Your task to perform on an android device: toggle sleep mode Image 0: 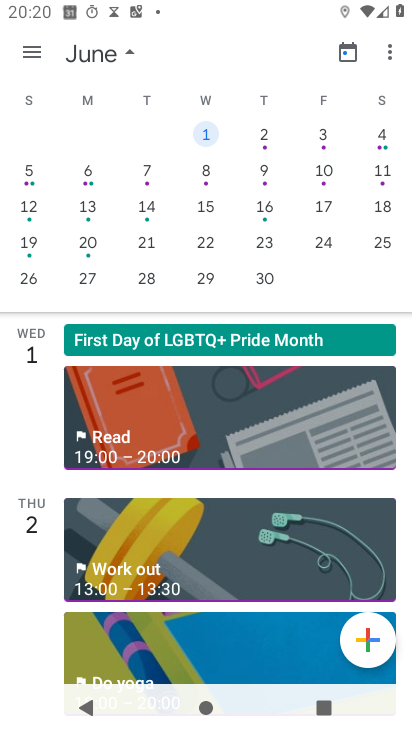
Step 0: press home button
Your task to perform on an android device: toggle sleep mode Image 1: 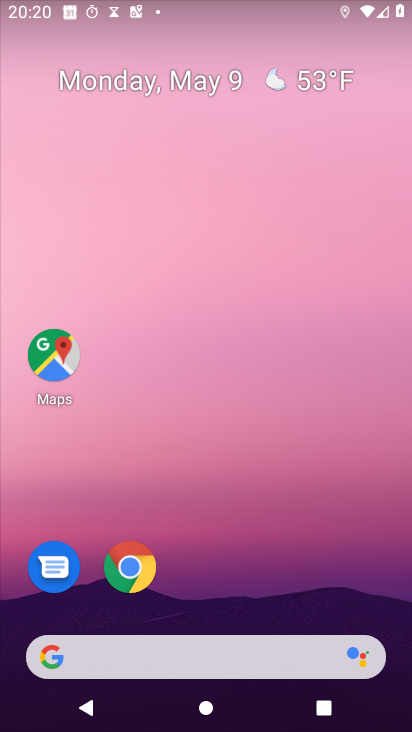
Step 1: drag from (248, 629) to (251, 5)
Your task to perform on an android device: toggle sleep mode Image 2: 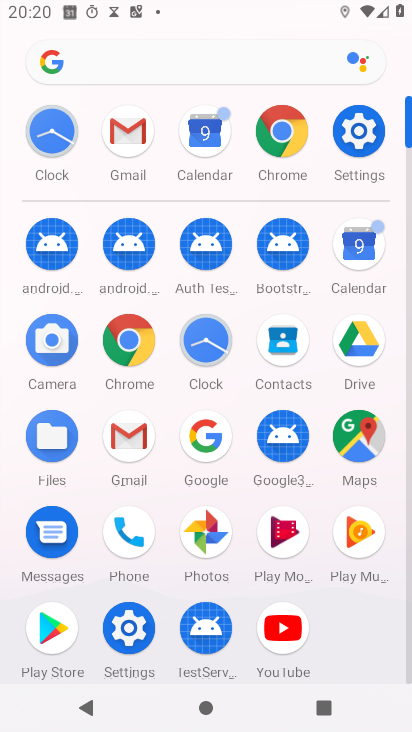
Step 2: click (354, 116)
Your task to perform on an android device: toggle sleep mode Image 3: 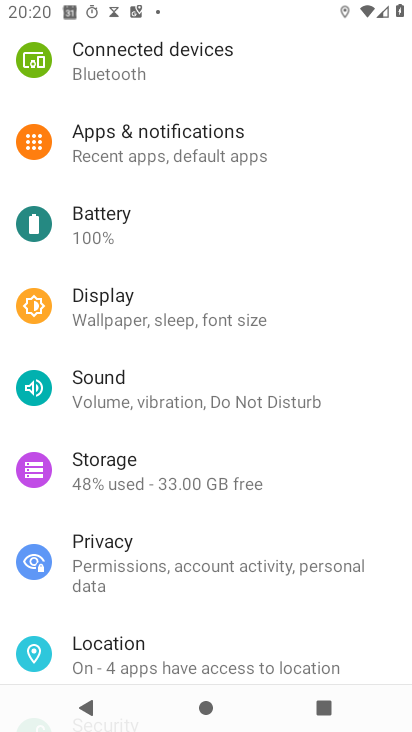
Step 3: drag from (108, 618) to (117, 429)
Your task to perform on an android device: toggle sleep mode Image 4: 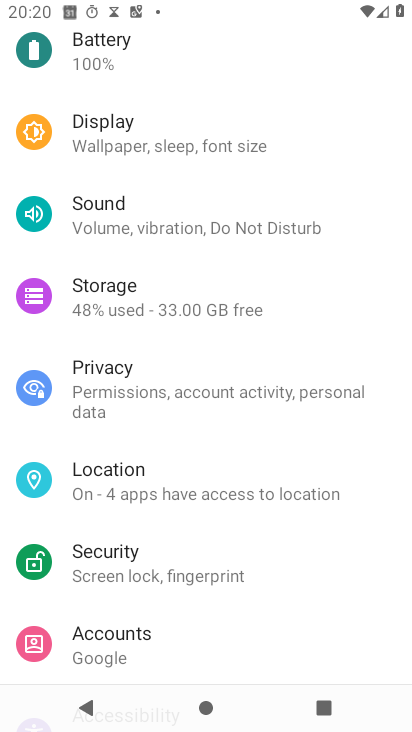
Step 4: drag from (170, 626) to (159, 463)
Your task to perform on an android device: toggle sleep mode Image 5: 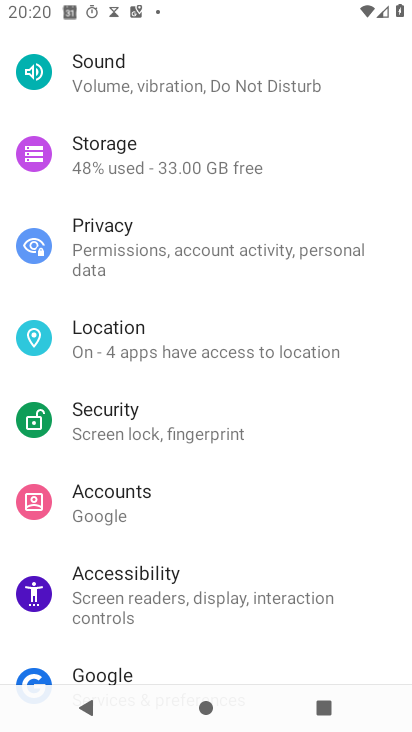
Step 5: drag from (187, 619) to (225, 413)
Your task to perform on an android device: toggle sleep mode Image 6: 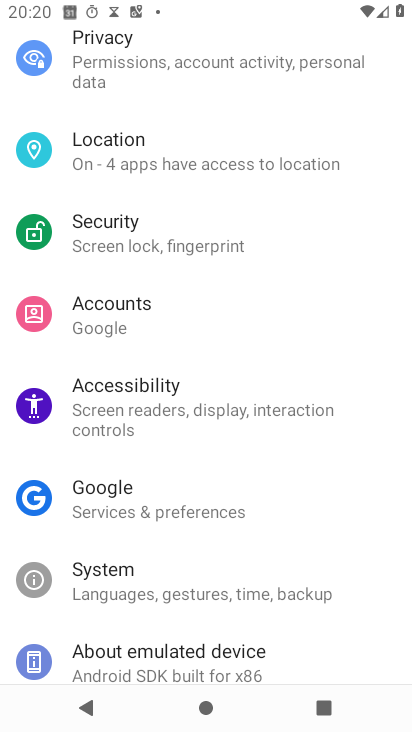
Step 6: drag from (210, 612) to (174, 434)
Your task to perform on an android device: toggle sleep mode Image 7: 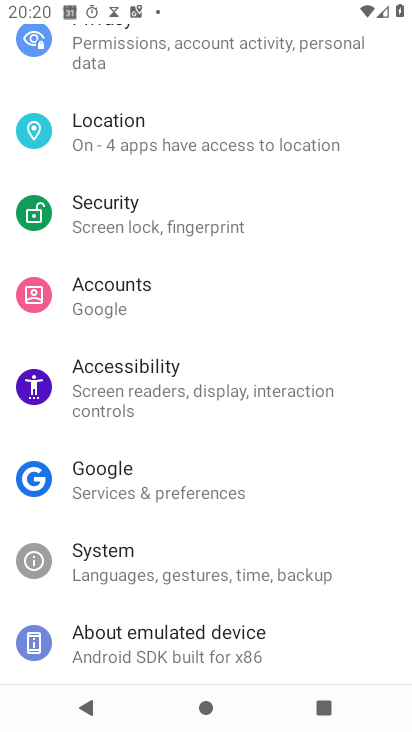
Step 7: drag from (187, 414) to (271, 622)
Your task to perform on an android device: toggle sleep mode Image 8: 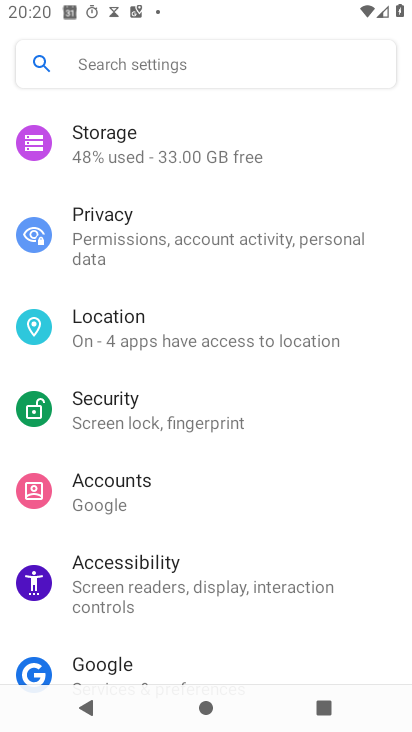
Step 8: drag from (239, 453) to (253, 638)
Your task to perform on an android device: toggle sleep mode Image 9: 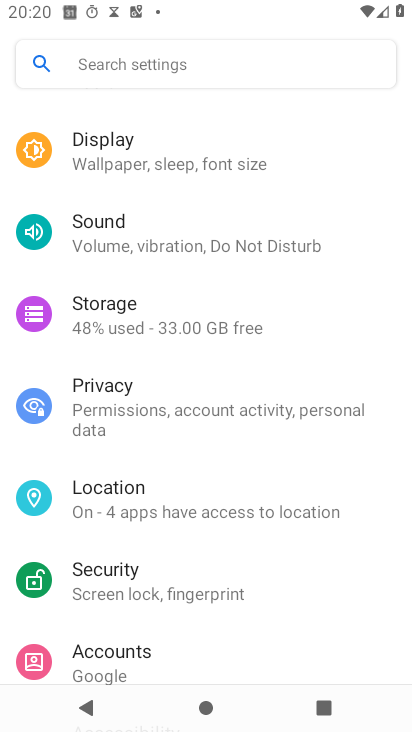
Step 9: drag from (224, 465) to (240, 614)
Your task to perform on an android device: toggle sleep mode Image 10: 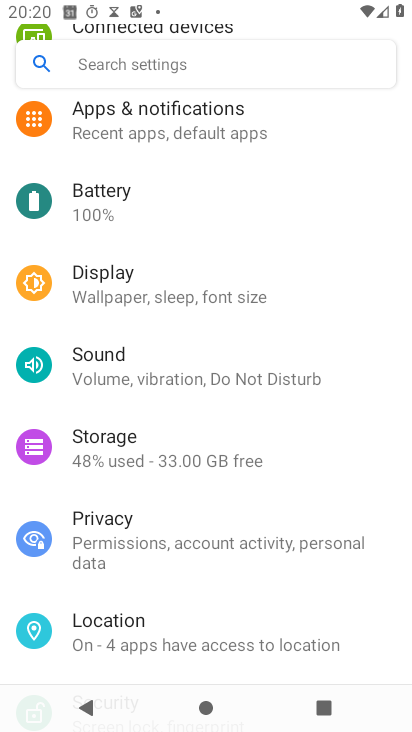
Step 10: drag from (225, 472) to (253, 618)
Your task to perform on an android device: toggle sleep mode Image 11: 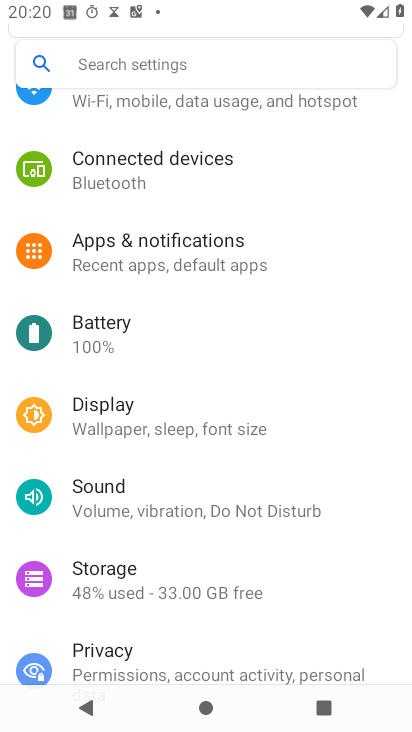
Step 11: drag from (266, 468) to (290, 596)
Your task to perform on an android device: toggle sleep mode Image 12: 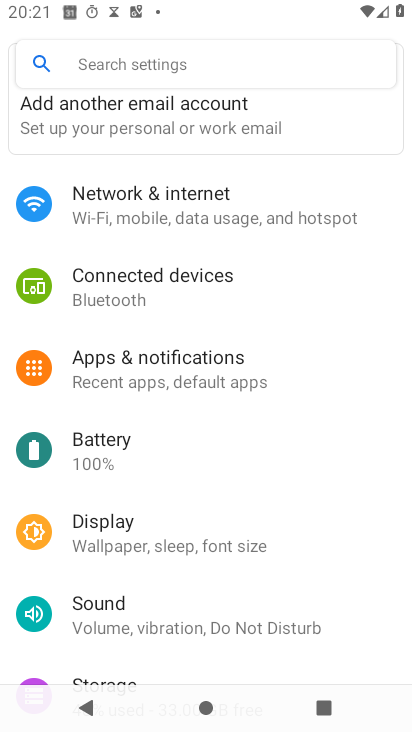
Step 12: drag from (268, 475) to (269, 592)
Your task to perform on an android device: toggle sleep mode Image 13: 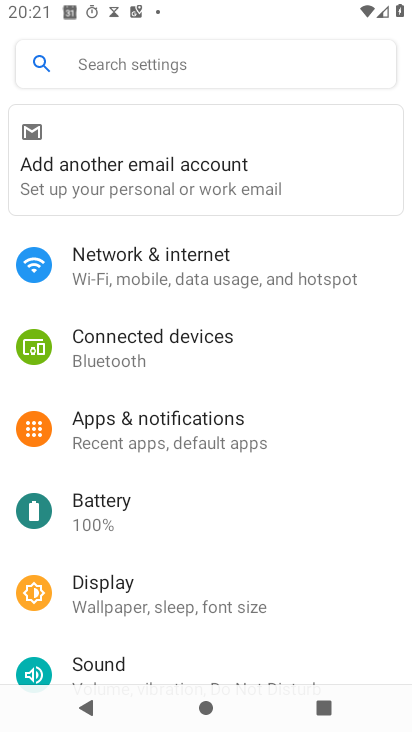
Step 13: drag from (252, 456) to (282, 596)
Your task to perform on an android device: toggle sleep mode Image 14: 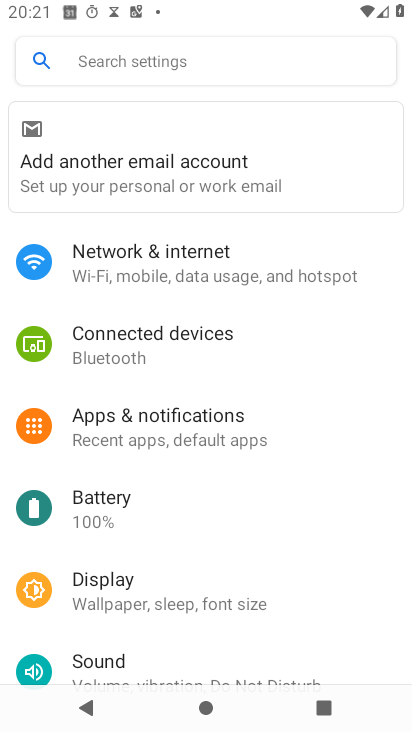
Step 14: click (222, 589)
Your task to perform on an android device: toggle sleep mode Image 15: 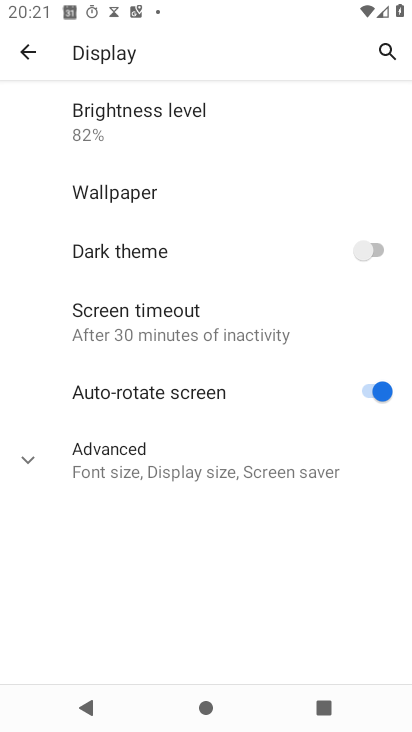
Step 15: click (160, 471)
Your task to perform on an android device: toggle sleep mode Image 16: 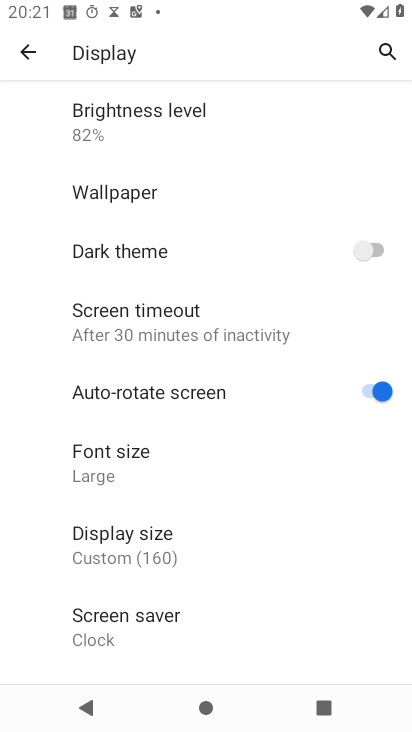
Step 16: task complete